Your task to perform on an android device: Open notification settings Image 0: 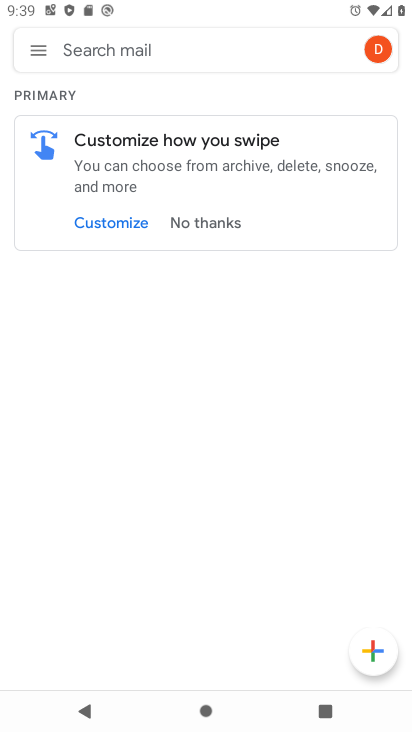
Step 0: press home button
Your task to perform on an android device: Open notification settings Image 1: 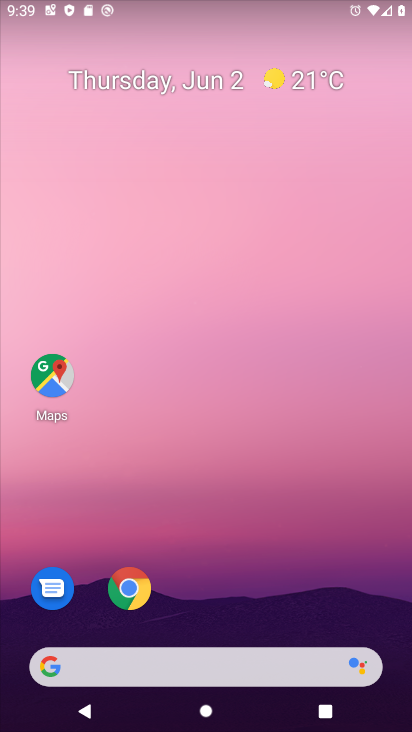
Step 1: drag from (197, 653) to (258, 311)
Your task to perform on an android device: Open notification settings Image 2: 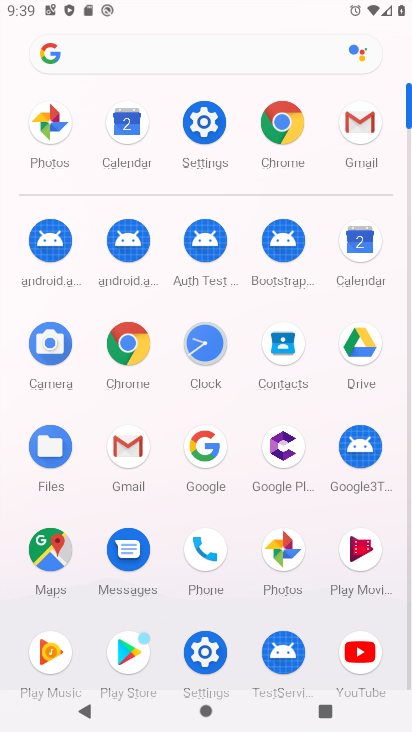
Step 2: click (201, 125)
Your task to perform on an android device: Open notification settings Image 3: 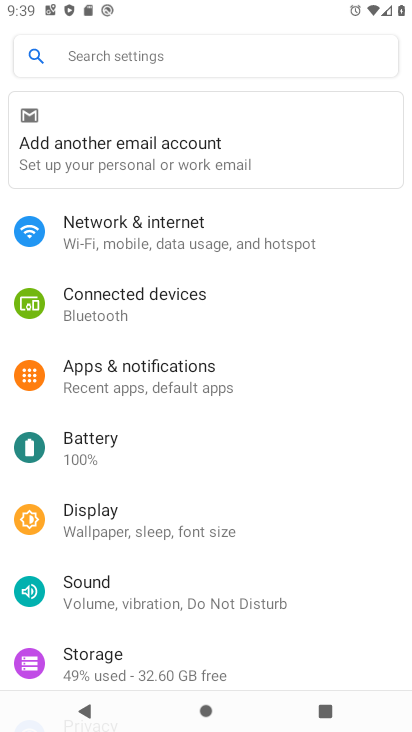
Step 3: click (163, 366)
Your task to perform on an android device: Open notification settings Image 4: 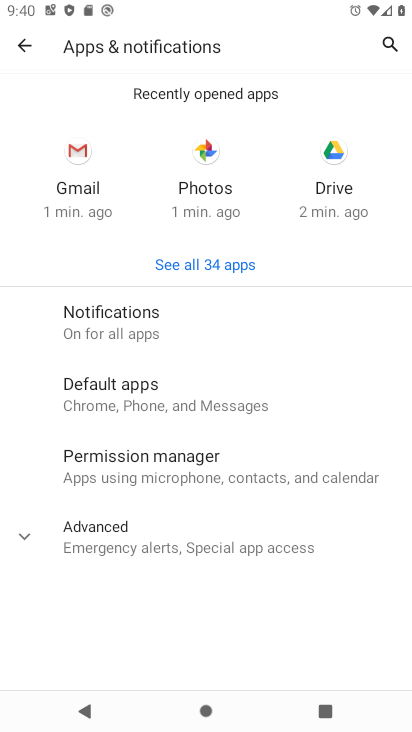
Step 4: task complete